Your task to perform on an android device: Open the calendar app, open the side menu, and click the "Day" option Image 0: 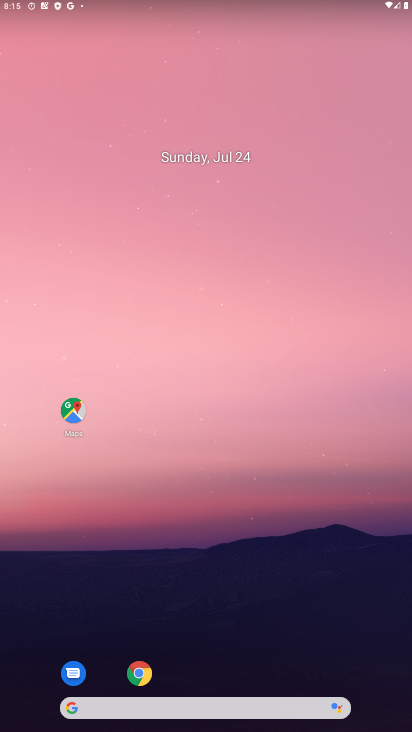
Step 0: drag from (18, 649) to (185, 11)
Your task to perform on an android device: Open the calendar app, open the side menu, and click the "Day" option Image 1: 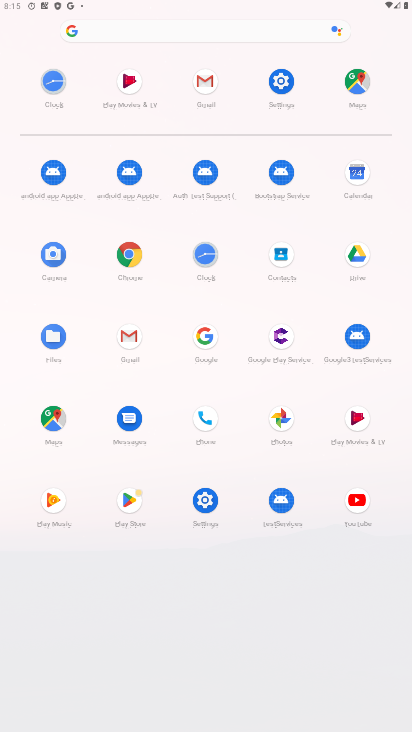
Step 1: click (360, 171)
Your task to perform on an android device: Open the calendar app, open the side menu, and click the "Day" option Image 2: 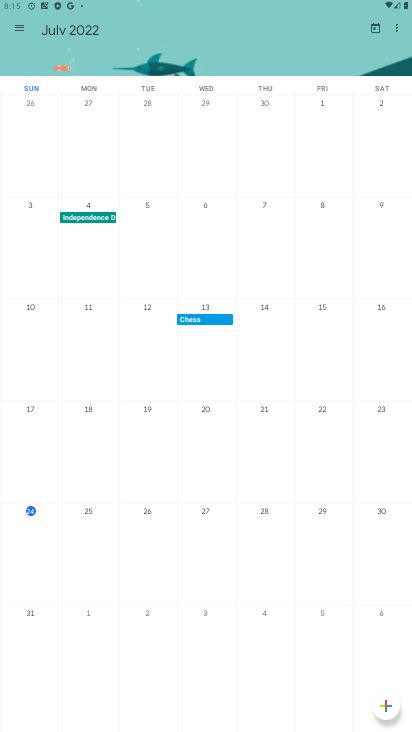
Step 2: click (16, 26)
Your task to perform on an android device: Open the calendar app, open the side menu, and click the "Day" option Image 3: 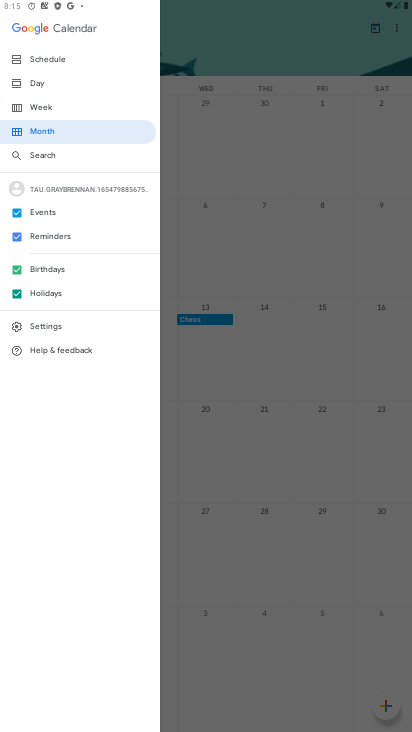
Step 3: click (32, 83)
Your task to perform on an android device: Open the calendar app, open the side menu, and click the "Day" option Image 4: 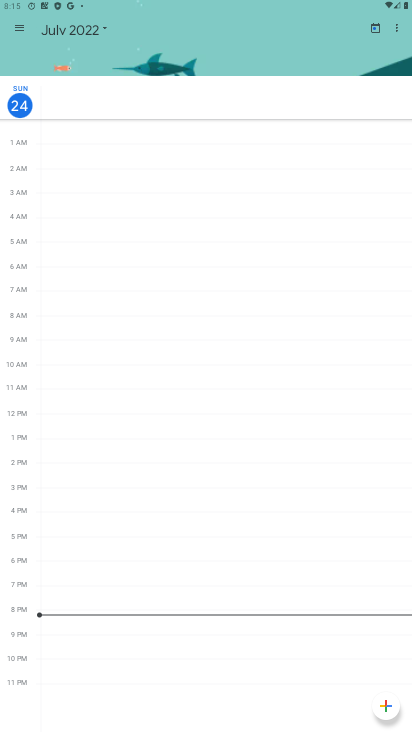
Step 4: task complete